Your task to perform on an android device: clear history in the chrome app Image 0: 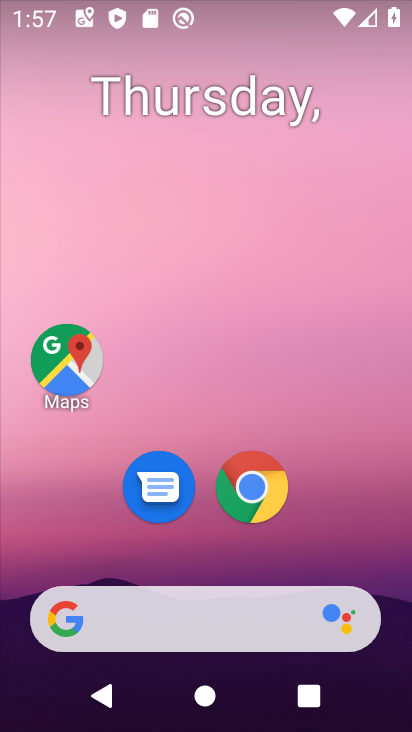
Step 0: click (253, 477)
Your task to perform on an android device: clear history in the chrome app Image 1: 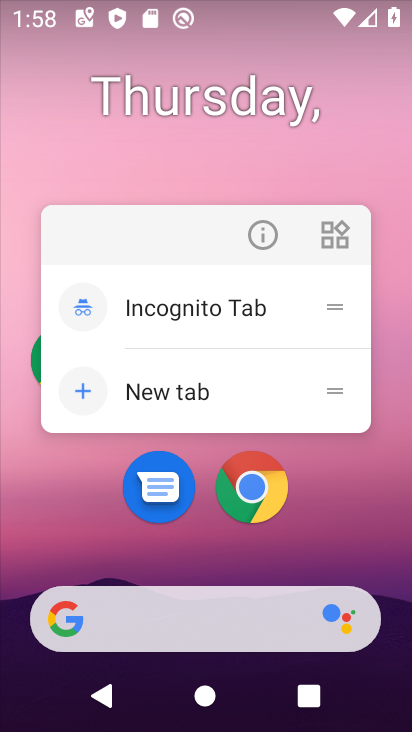
Step 1: click (254, 480)
Your task to perform on an android device: clear history in the chrome app Image 2: 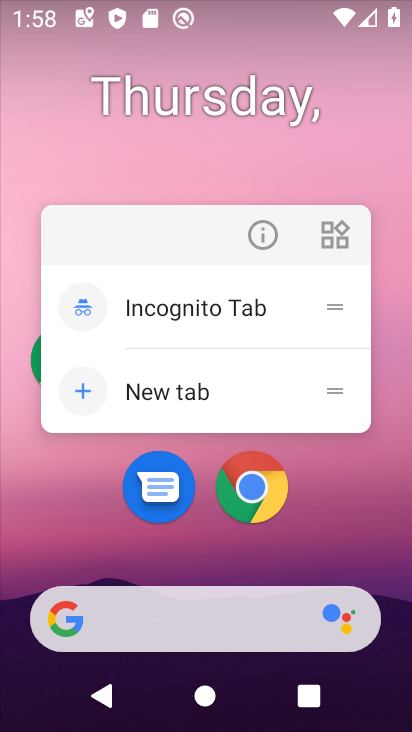
Step 2: click (252, 477)
Your task to perform on an android device: clear history in the chrome app Image 3: 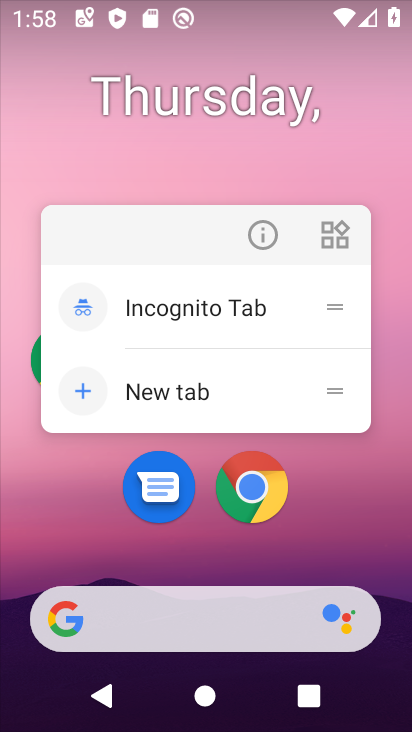
Step 3: click (250, 477)
Your task to perform on an android device: clear history in the chrome app Image 4: 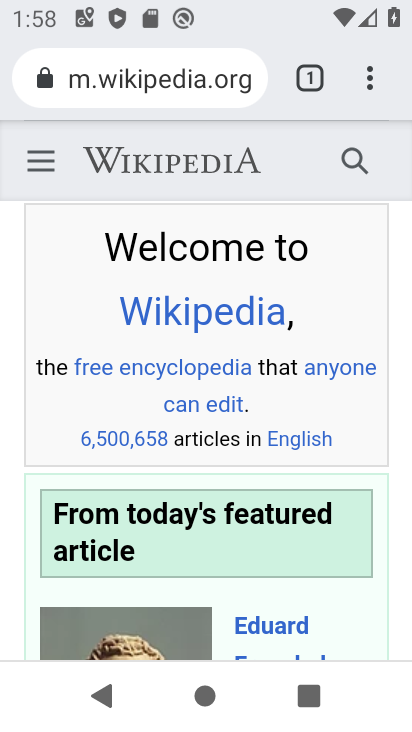
Step 4: click (368, 86)
Your task to perform on an android device: clear history in the chrome app Image 5: 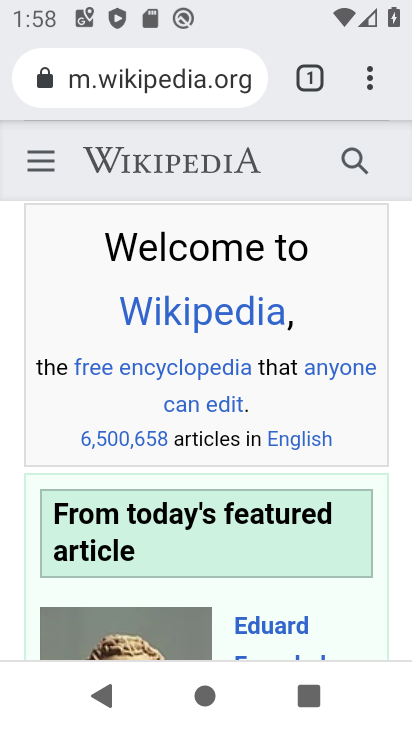
Step 5: click (379, 105)
Your task to perform on an android device: clear history in the chrome app Image 6: 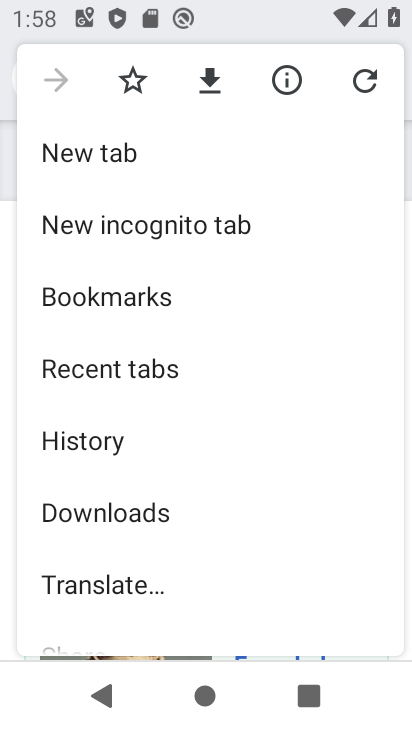
Step 6: click (49, 451)
Your task to perform on an android device: clear history in the chrome app Image 7: 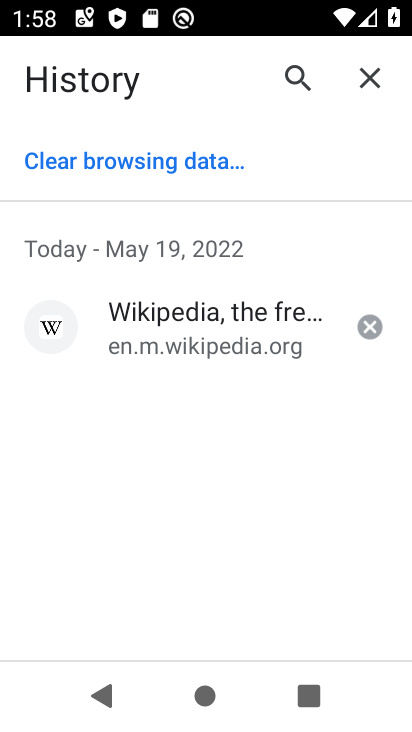
Step 7: click (130, 162)
Your task to perform on an android device: clear history in the chrome app Image 8: 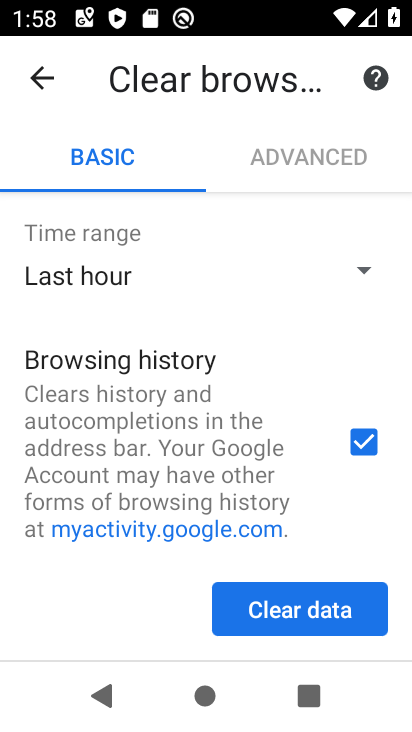
Step 8: click (297, 611)
Your task to perform on an android device: clear history in the chrome app Image 9: 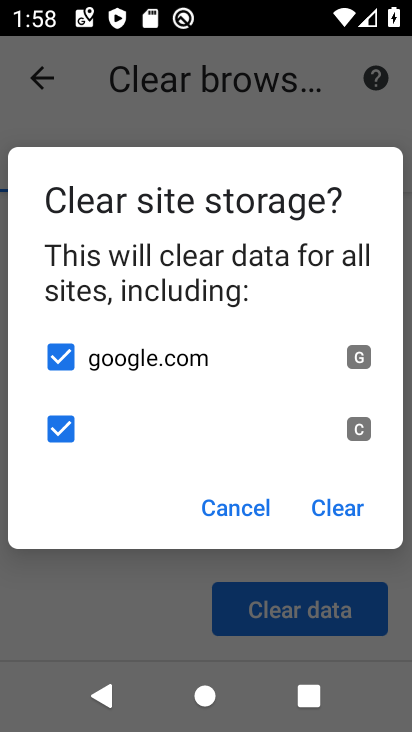
Step 9: click (353, 510)
Your task to perform on an android device: clear history in the chrome app Image 10: 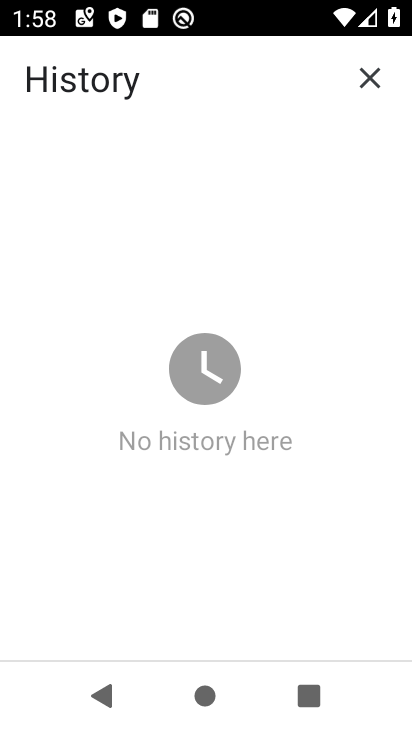
Step 10: task complete